Your task to perform on an android device: Open notification settings Image 0: 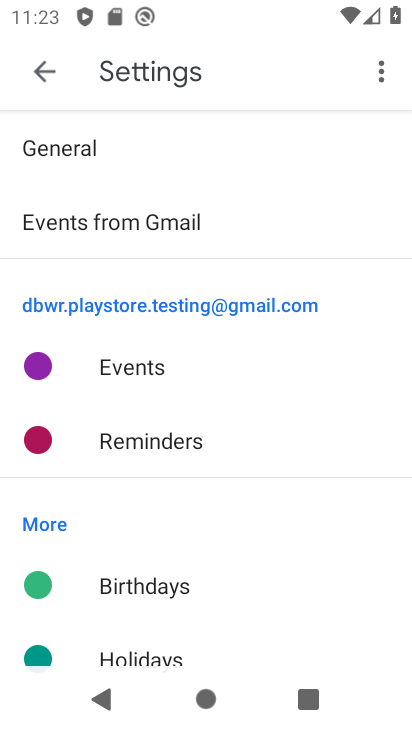
Step 0: press home button
Your task to perform on an android device: Open notification settings Image 1: 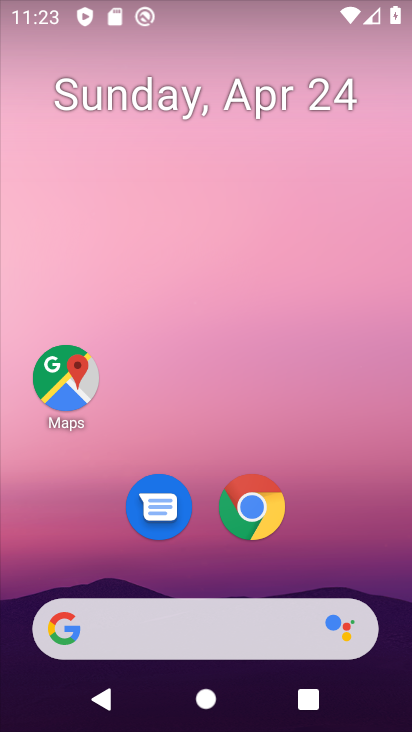
Step 1: drag from (336, 487) to (349, 65)
Your task to perform on an android device: Open notification settings Image 2: 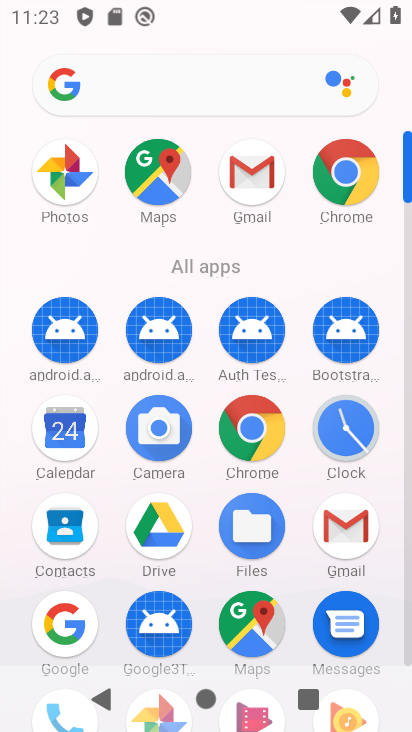
Step 2: drag from (301, 277) to (300, 15)
Your task to perform on an android device: Open notification settings Image 3: 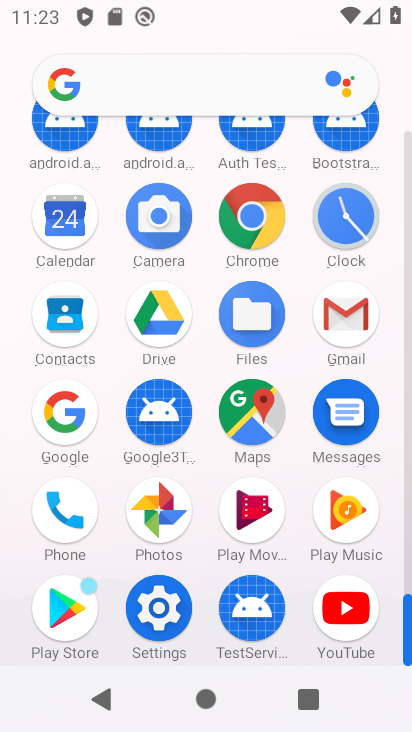
Step 3: click (170, 600)
Your task to perform on an android device: Open notification settings Image 4: 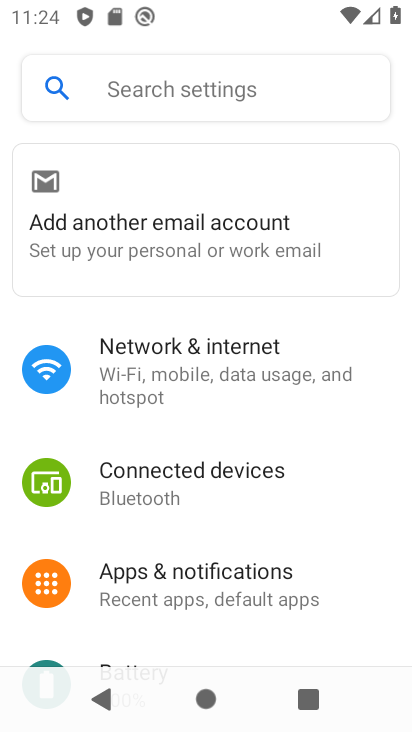
Step 4: click (241, 573)
Your task to perform on an android device: Open notification settings Image 5: 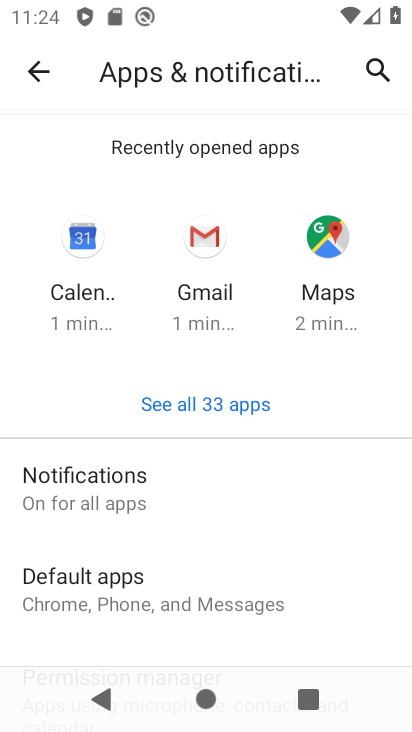
Step 5: click (103, 487)
Your task to perform on an android device: Open notification settings Image 6: 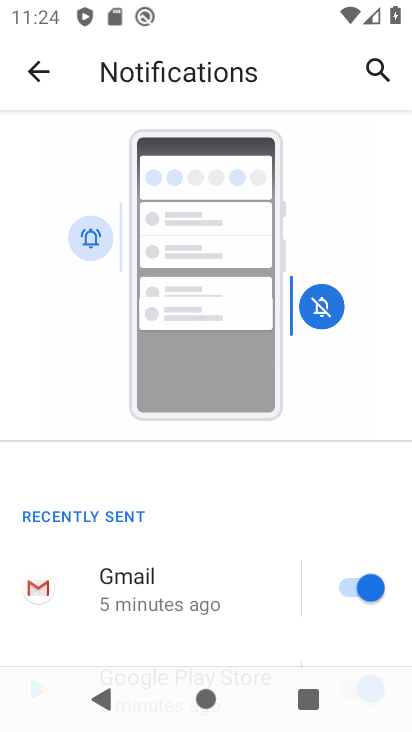
Step 6: task complete